Your task to perform on an android device: When is my next appointment? Image 0: 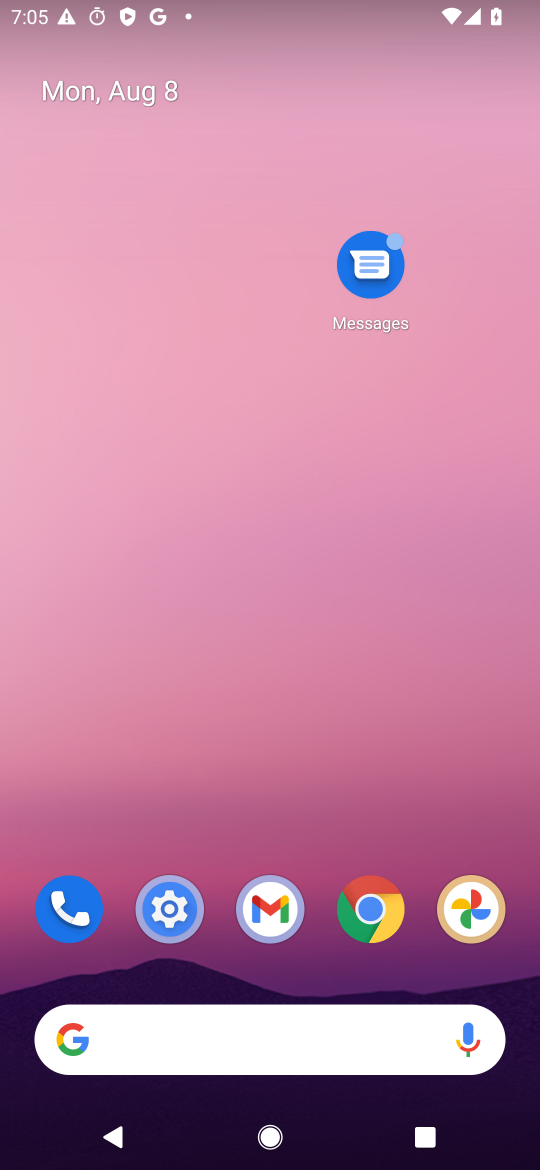
Step 0: click (176, 1034)
Your task to perform on an android device: When is my next appointment? Image 1: 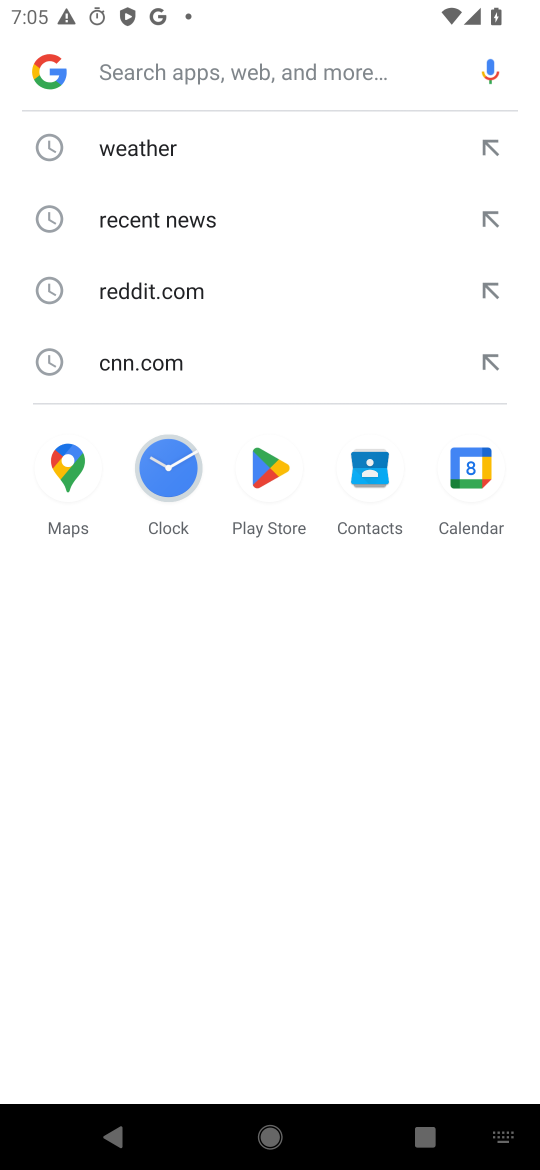
Step 1: click (470, 478)
Your task to perform on an android device: When is my next appointment? Image 2: 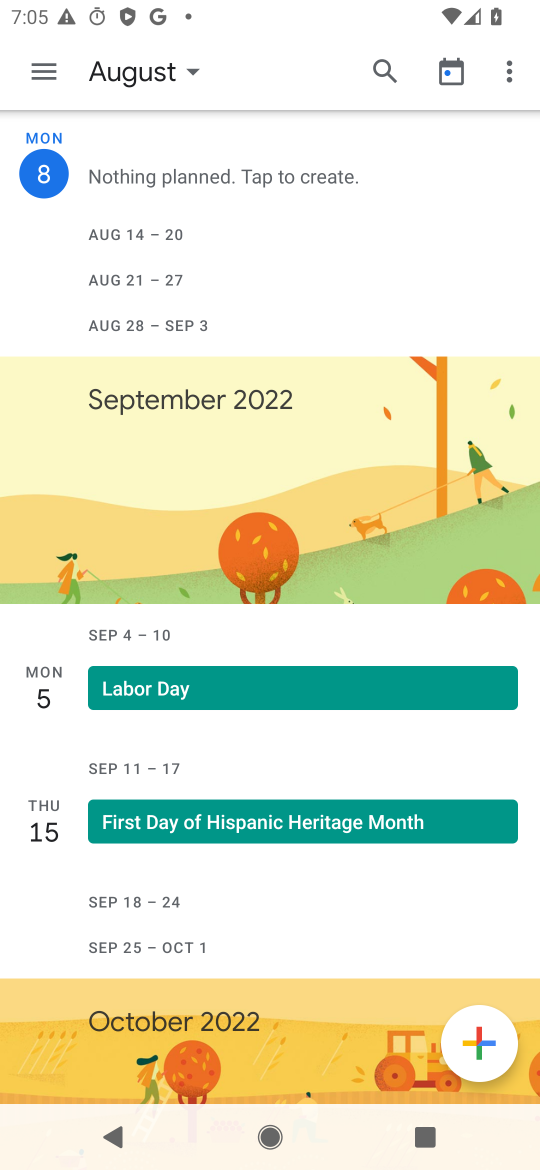
Step 2: task complete